Your task to perform on an android device: uninstall "Instagram" Image 0: 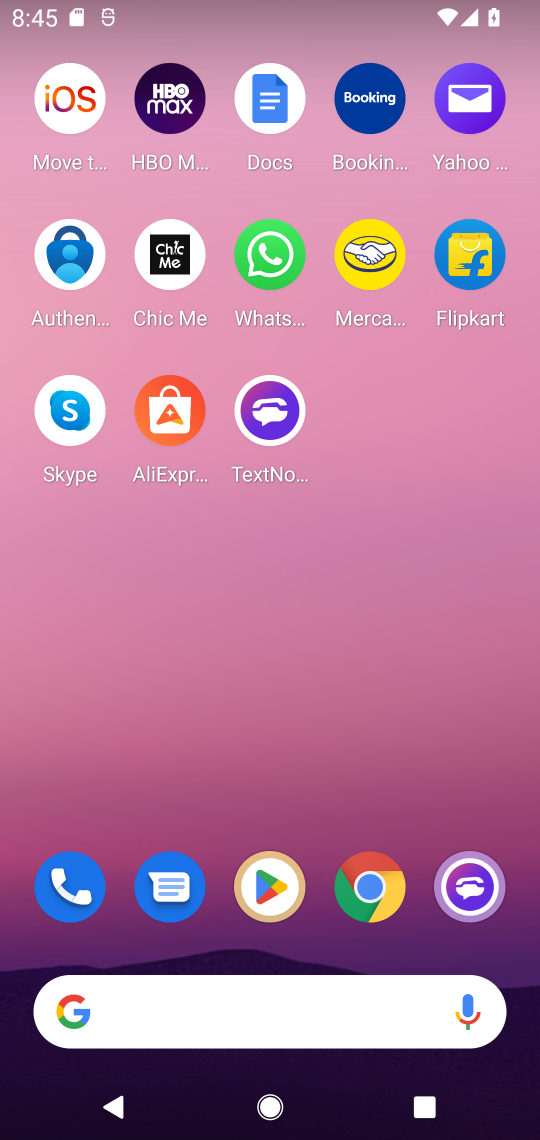
Step 0: drag from (318, 954) to (316, 156)
Your task to perform on an android device: uninstall "Instagram" Image 1: 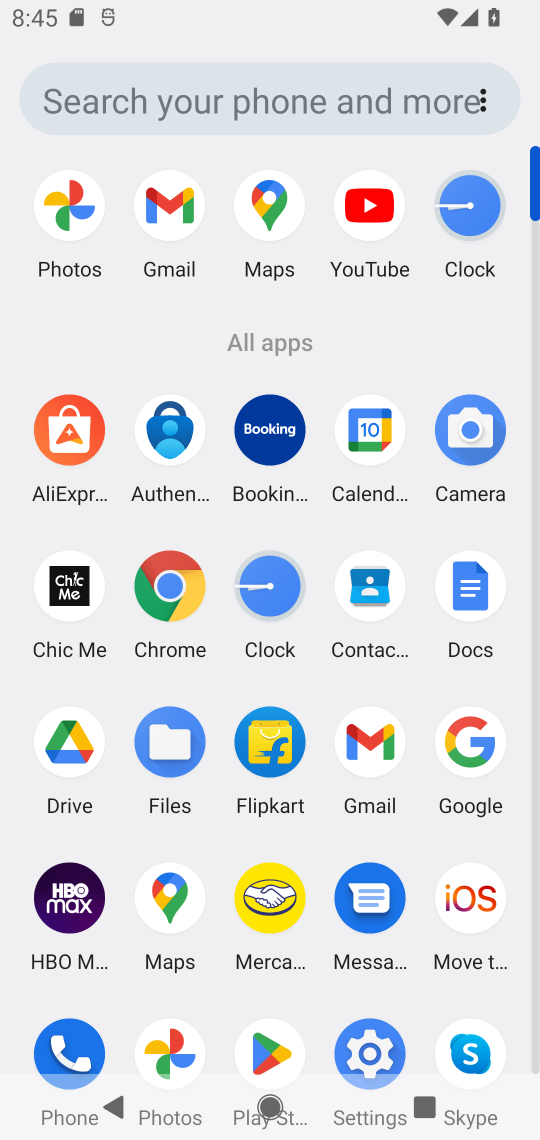
Step 1: click (335, 110)
Your task to perform on an android device: uninstall "Instagram" Image 2: 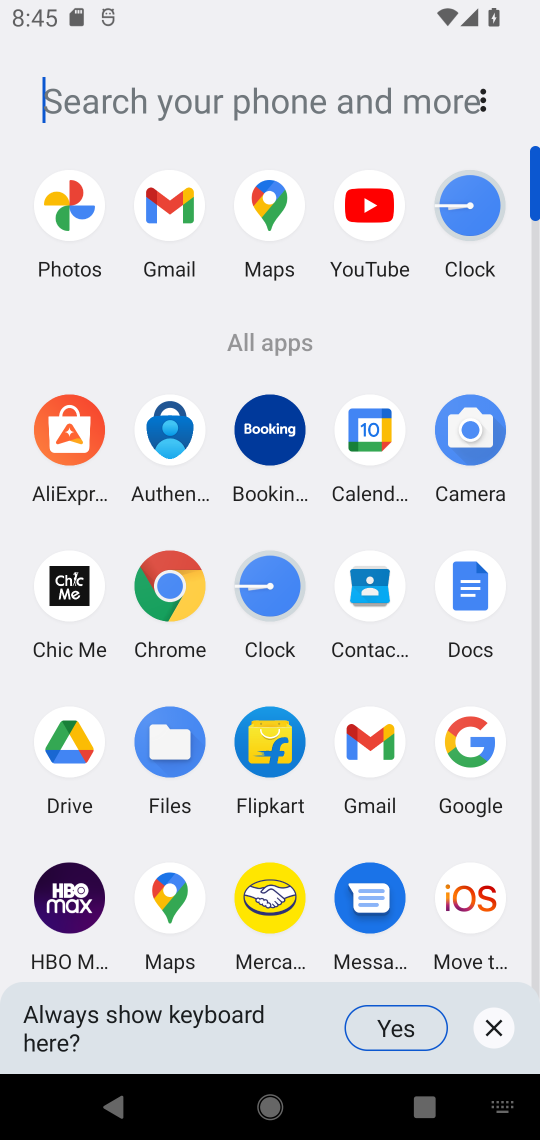
Step 2: click (487, 1018)
Your task to perform on an android device: uninstall "Instagram" Image 3: 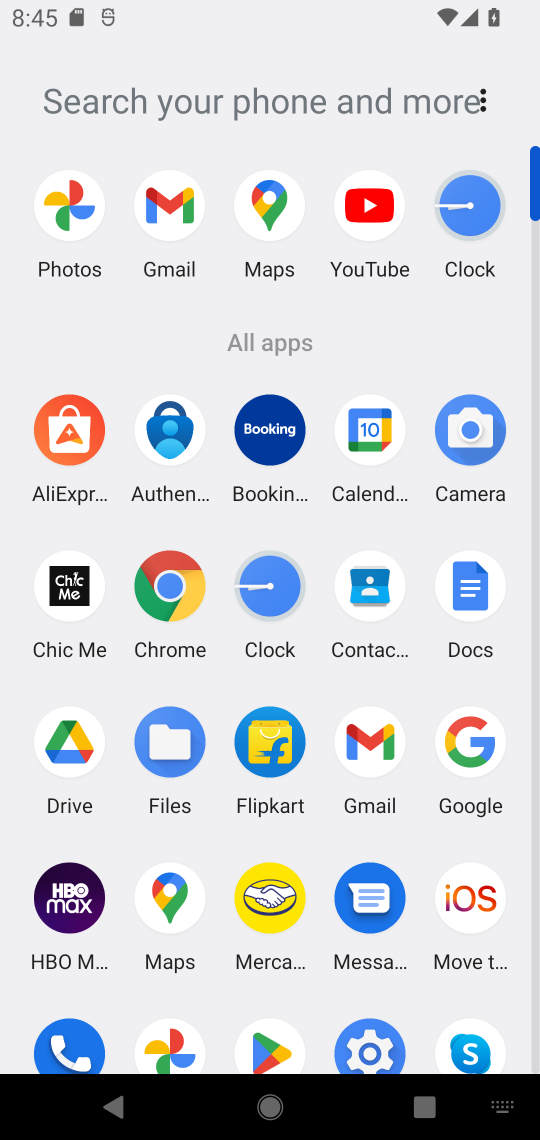
Step 3: click (379, 1038)
Your task to perform on an android device: uninstall "Instagram" Image 4: 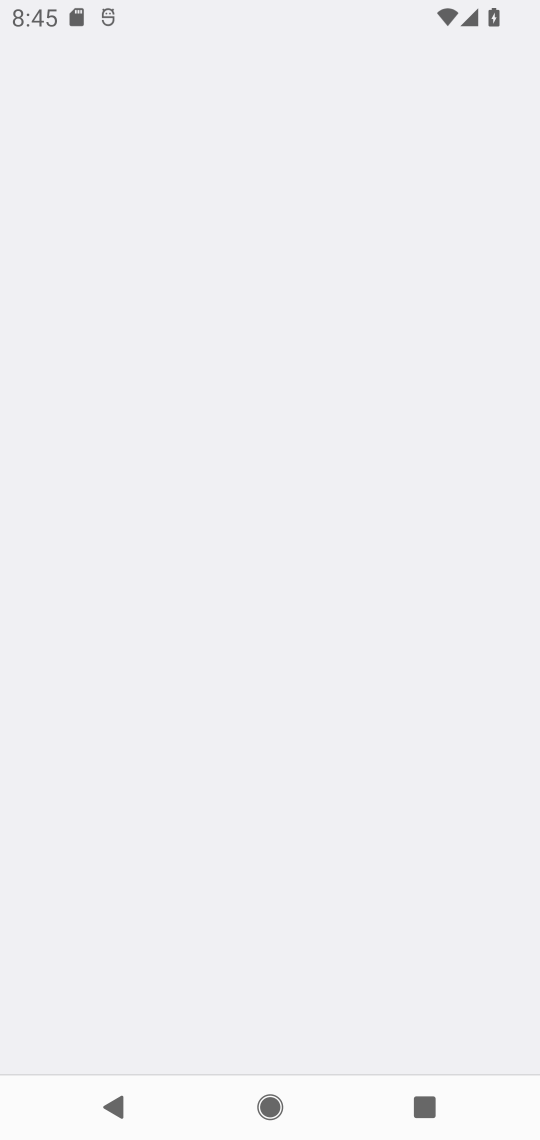
Step 4: press home button
Your task to perform on an android device: uninstall "Instagram" Image 5: 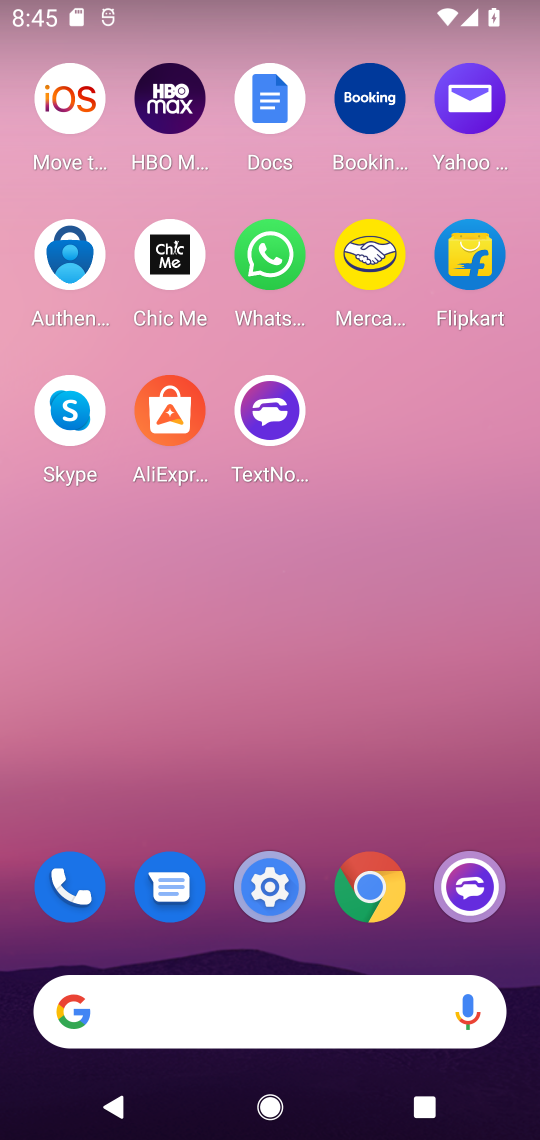
Step 5: drag from (321, 947) to (386, 75)
Your task to perform on an android device: uninstall "Instagram" Image 6: 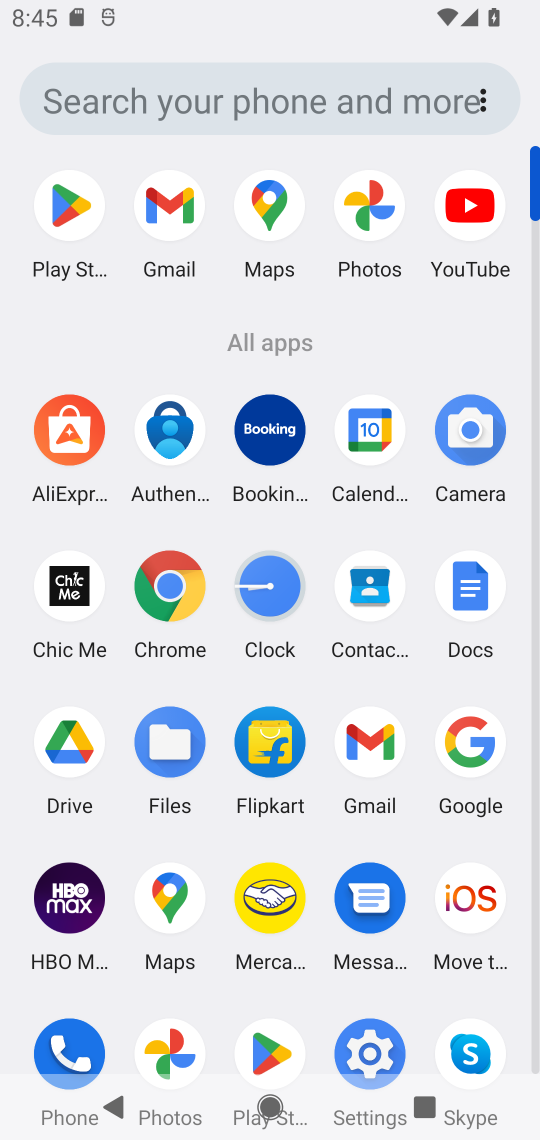
Step 6: click (269, 1034)
Your task to perform on an android device: uninstall "Instagram" Image 7: 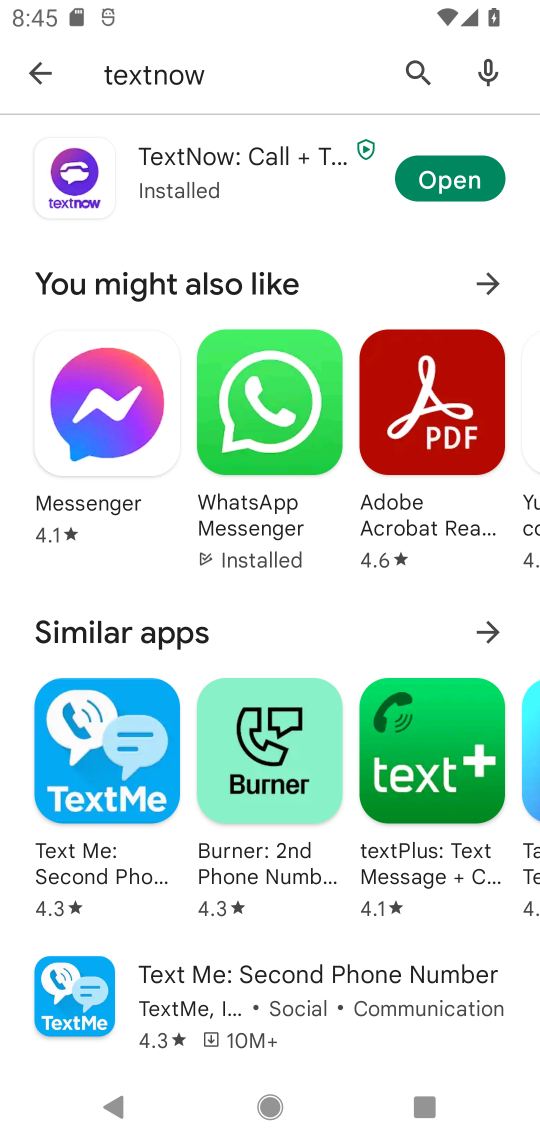
Step 7: click (404, 92)
Your task to perform on an android device: uninstall "Instagram" Image 8: 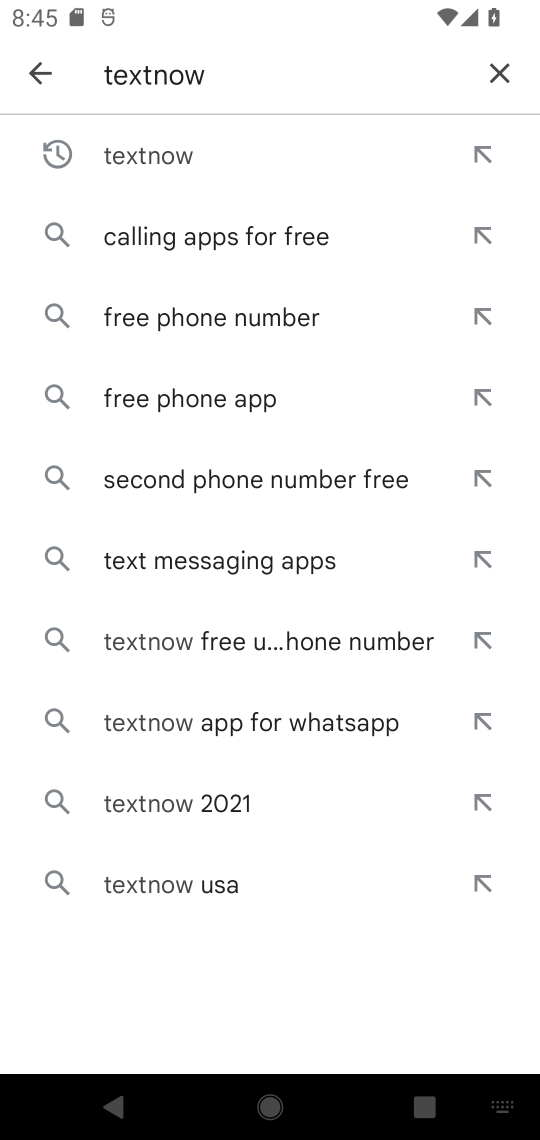
Step 8: click (505, 70)
Your task to perform on an android device: uninstall "Instagram" Image 9: 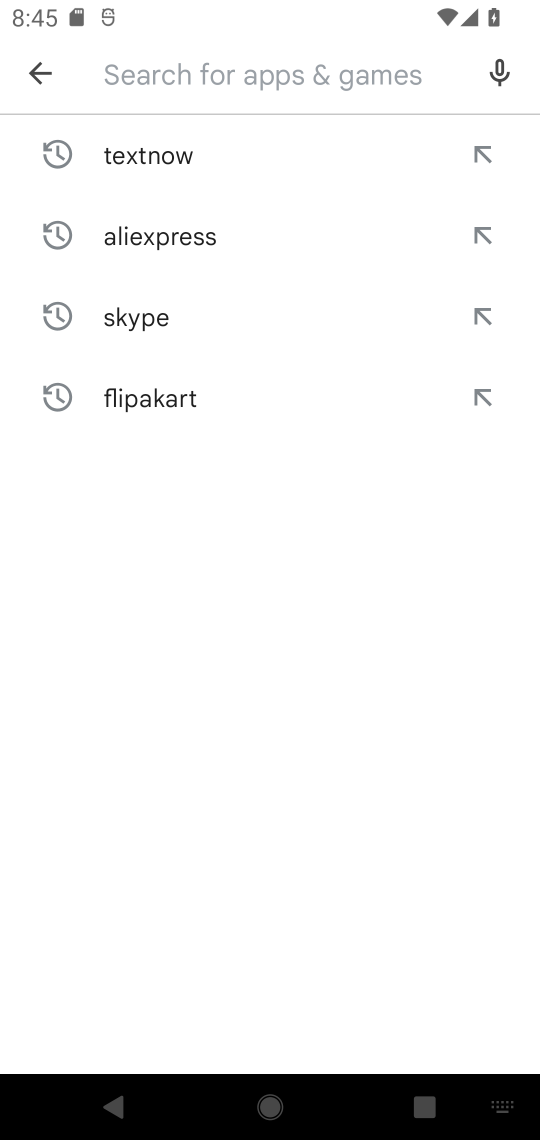
Step 9: type "instagram"
Your task to perform on an android device: uninstall "Instagram" Image 10: 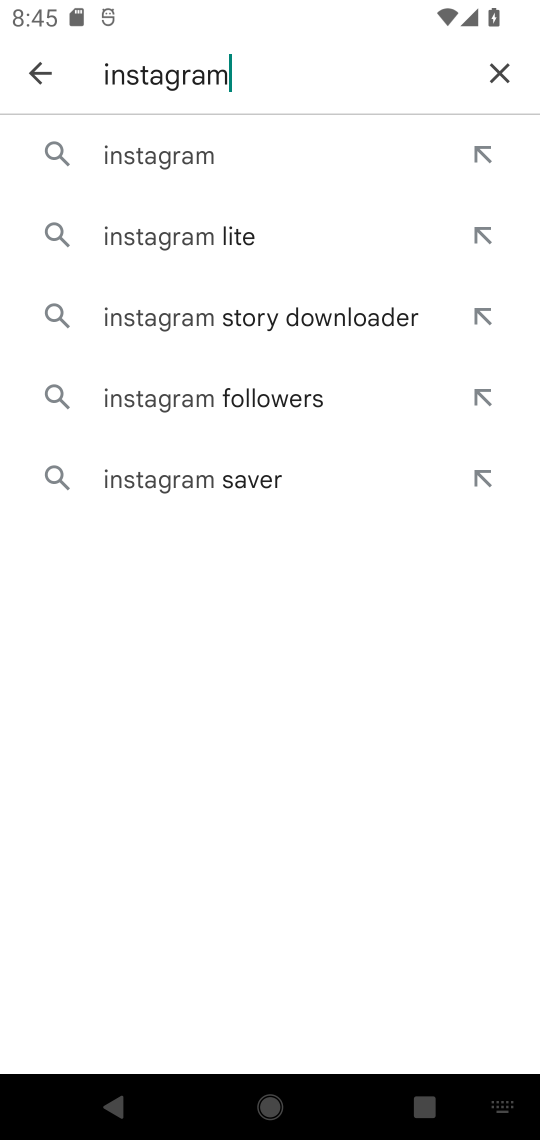
Step 10: click (292, 178)
Your task to perform on an android device: uninstall "Instagram" Image 11: 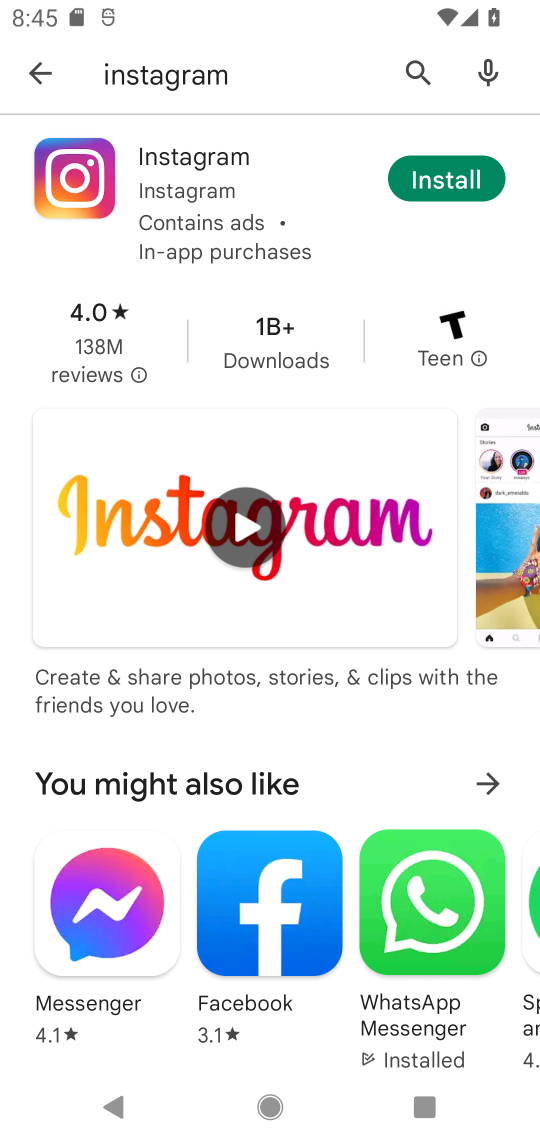
Step 11: click (434, 180)
Your task to perform on an android device: uninstall "Instagram" Image 12: 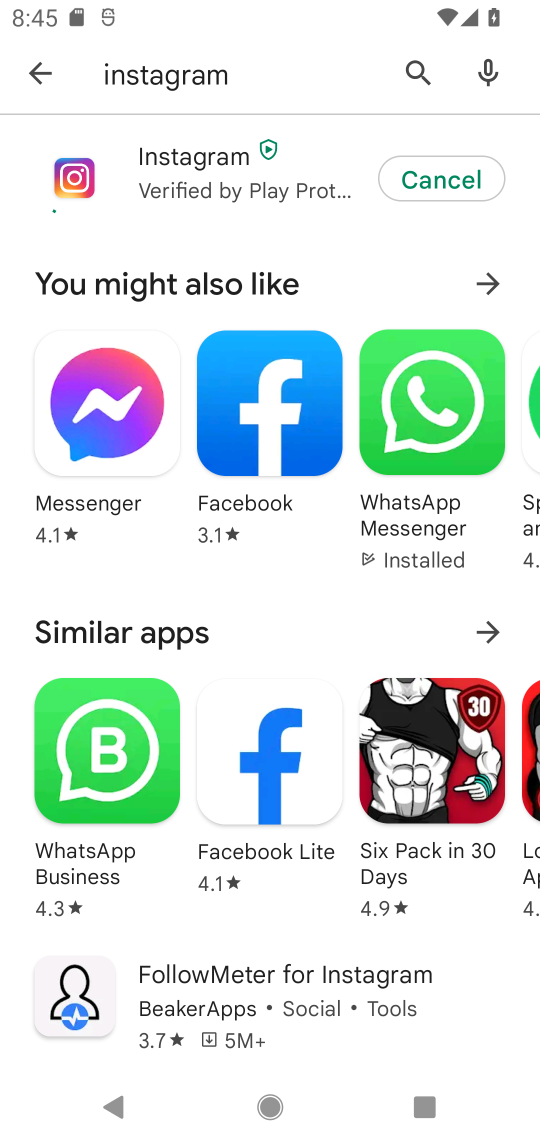
Step 12: task complete